Your task to perform on an android device: Open sound settings Image 0: 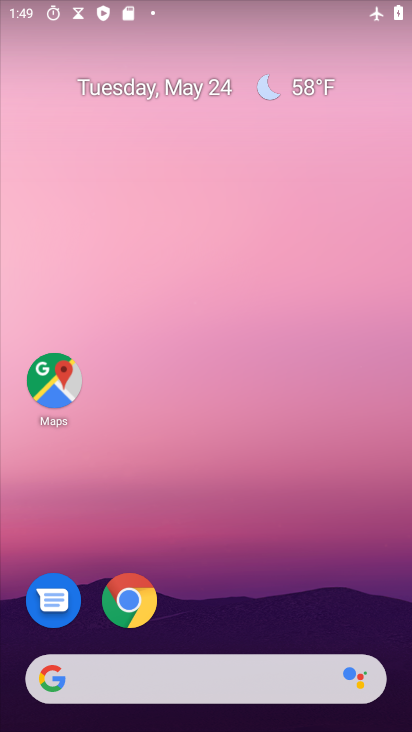
Step 0: drag from (294, 522) to (163, 2)
Your task to perform on an android device: Open sound settings Image 1: 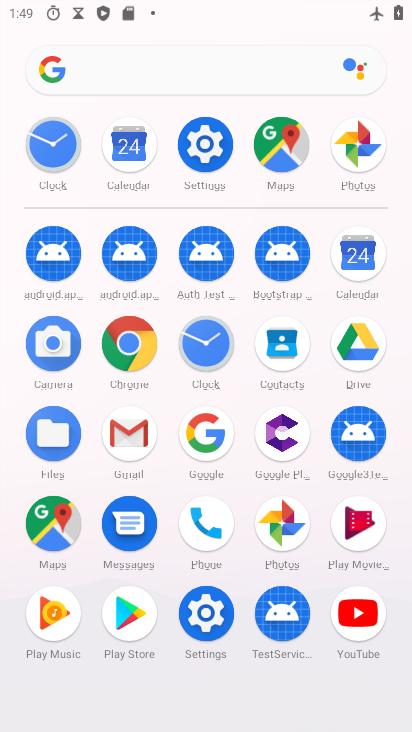
Step 1: click (200, 158)
Your task to perform on an android device: Open sound settings Image 2: 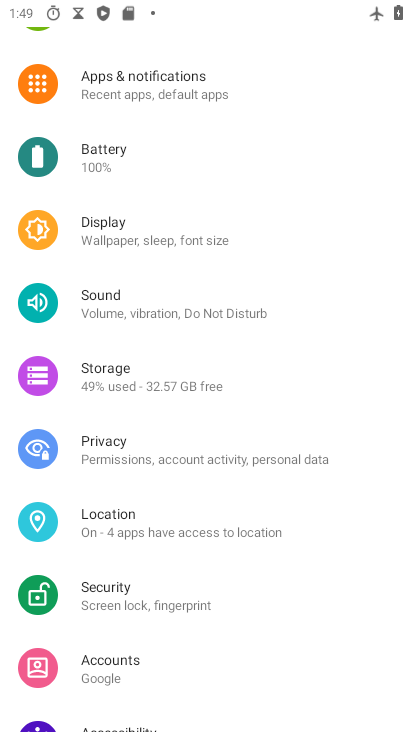
Step 2: click (163, 318)
Your task to perform on an android device: Open sound settings Image 3: 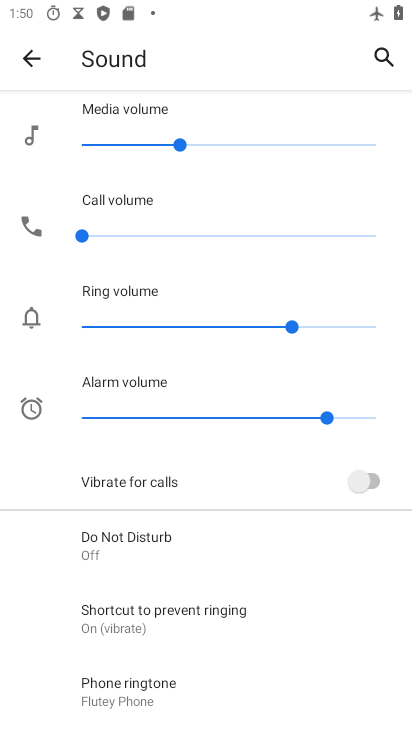
Step 3: task complete